Your task to perform on an android device: Is it going to rain today? Image 0: 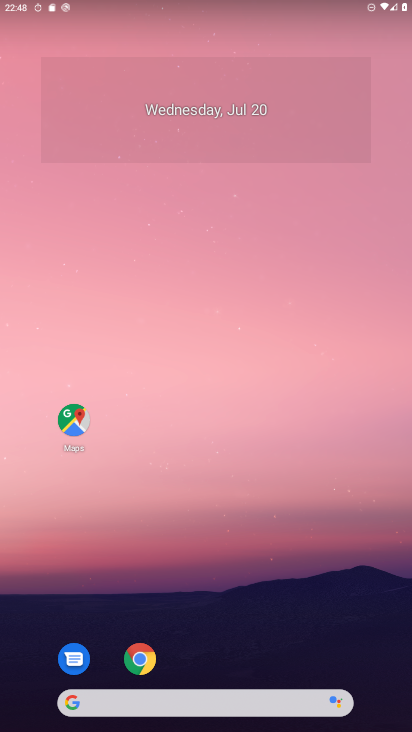
Step 0: drag from (346, 587) to (204, 0)
Your task to perform on an android device: Is it going to rain today? Image 1: 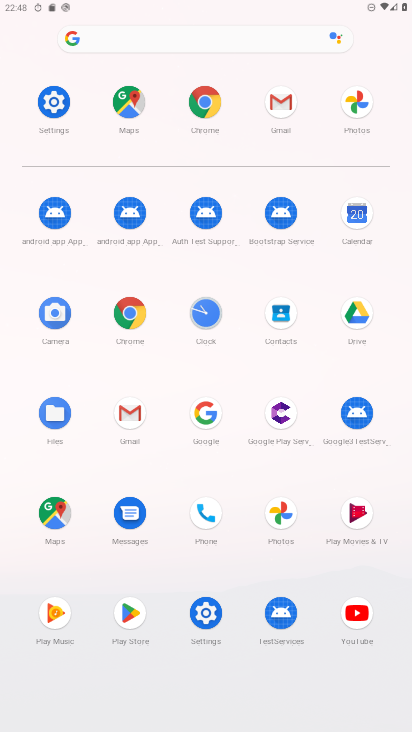
Step 1: click (202, 100)
Your task to perform on an android device: Is it going to rain today? Image 2: 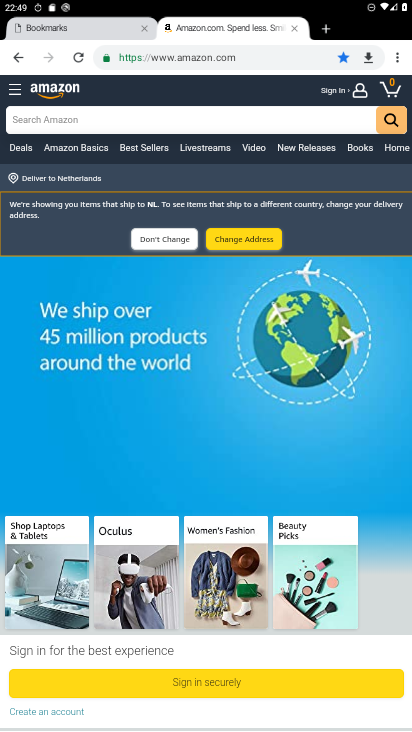
Step 2: click (145, 52)
Your task to perform on an android device: Is it going to rain today? Image 3: 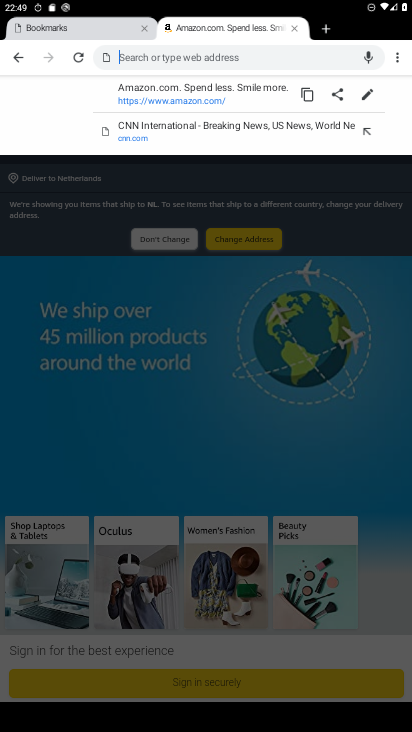
Step 3: type "weather"
Your task to perform on an android device: Is it going to rain today? Image 4: 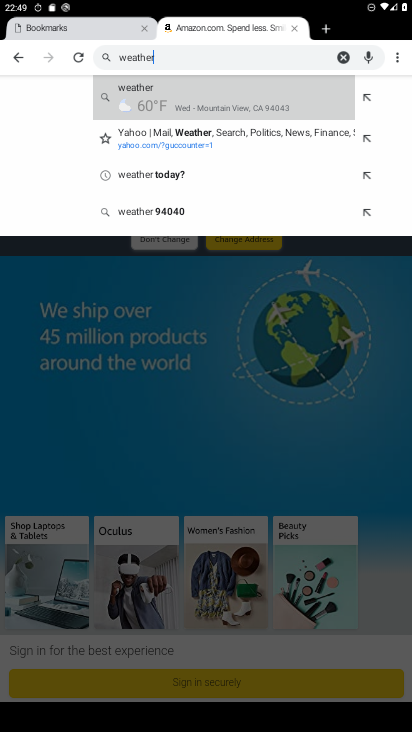
Step 4: click (273, 107)
Your task to perform on an android device: Is it going to rain today? Image 5: 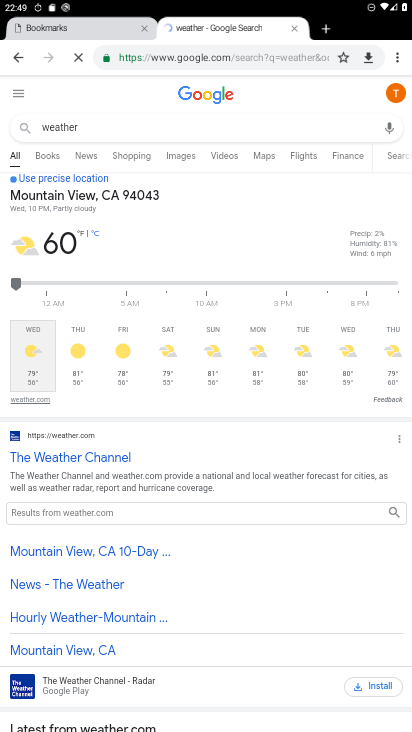
Step 5: task complete